Your task to perform on an android device: Open the map Image 0: 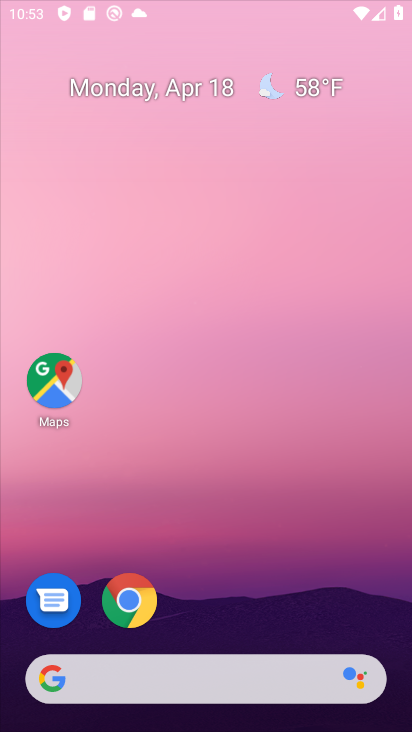
Step 0: drag from (174, 438) to (10, 7)
Your task to perform on an android device: Open the map Image 1: 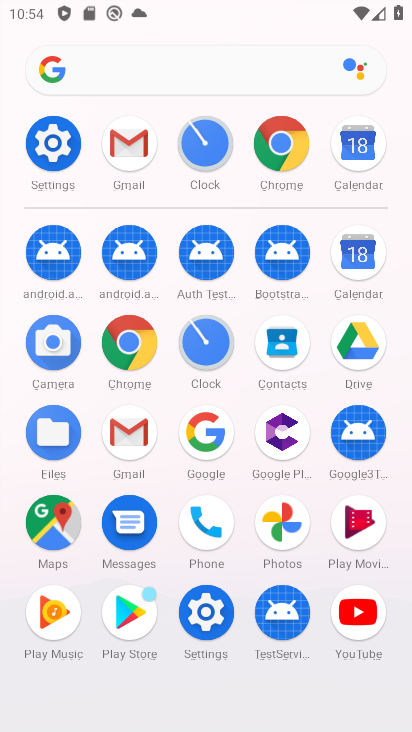
Step 1: click (53, 524)
Your task to perform on an android device: Open the map Image 2: 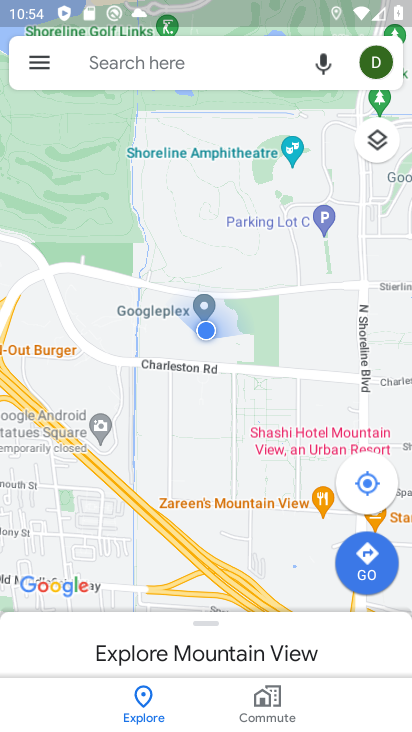
Step 2: task complete